Your task to perform on an android device: turn on javascript in the chrome app Image 0: 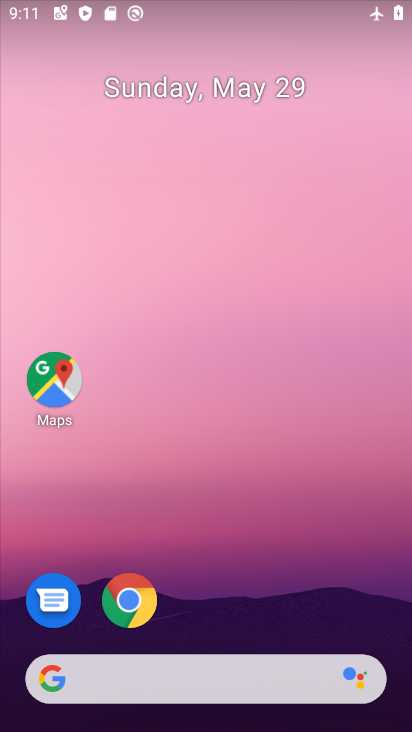
Step 0: click (128, 598)
Your task to perform on an android device: turn on javascript in the chrome app Image 1: 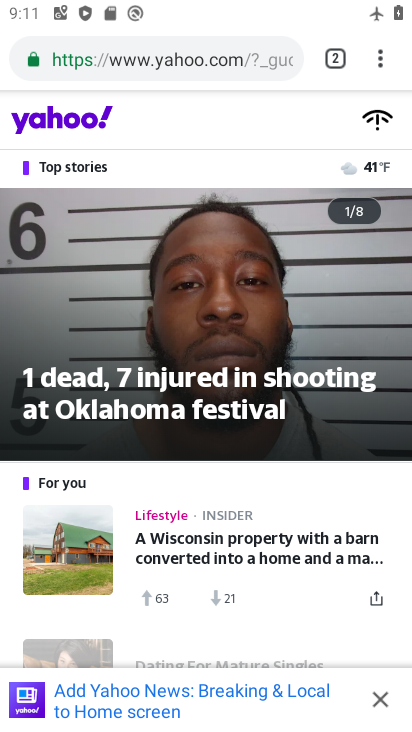
Step 1: click (380, 64)
Your task to perform on an android device: turn on javascript in the chrome app Image 2: 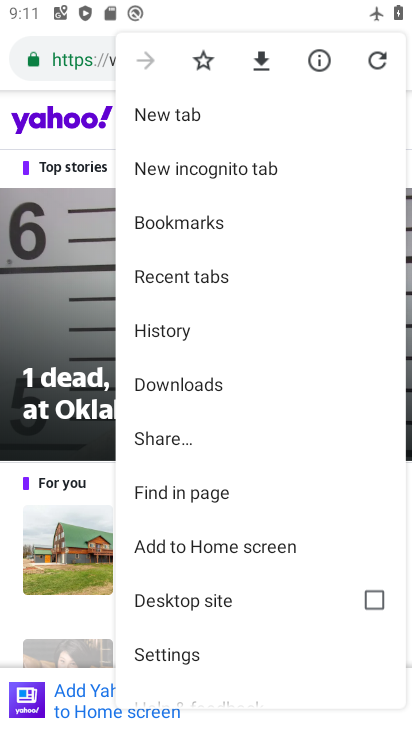
Step 2: click (160, 653)
Your task to perform on an android device: turn on javascript in the chrome app Image 3: 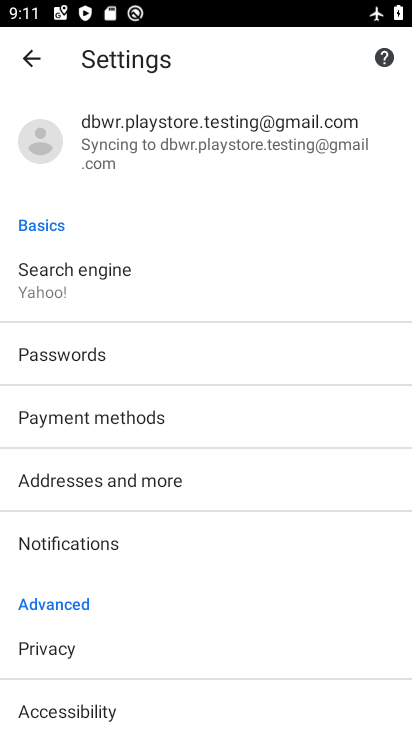
Step 3: drag from (136, 687) to (136, 308)
Your task to perform on an android device: turn on javascript in the chrome app Image 4: 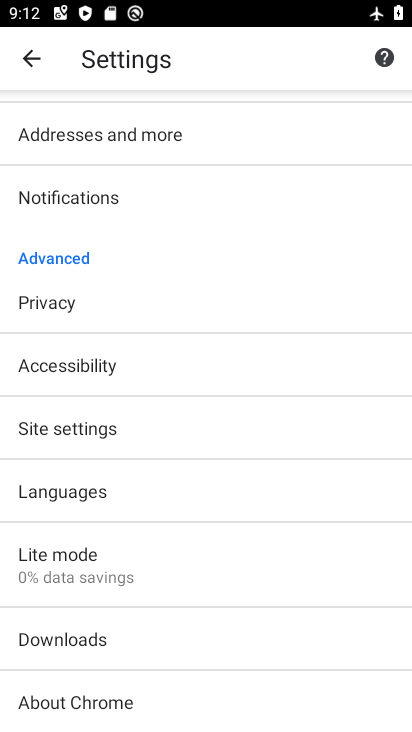
Step 4: drag from (150, 657) to (137, 339)
Your task to perform on an android device: turn on javascript in the chrome app Image 5: 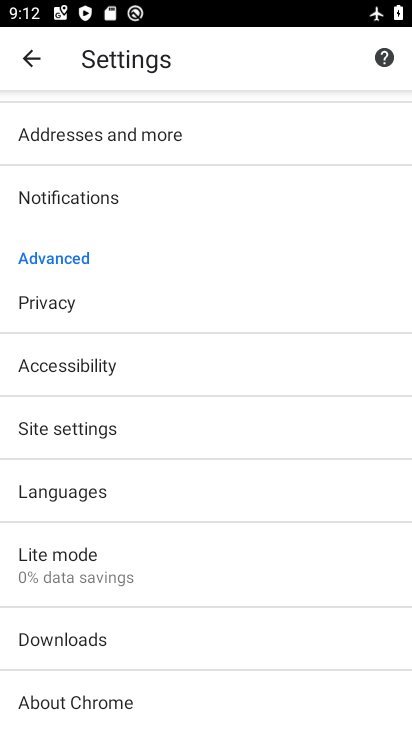
Step 5: click (78, 429)
Your task to perform on an android device: turn on javascript in the chrome app Image 6: 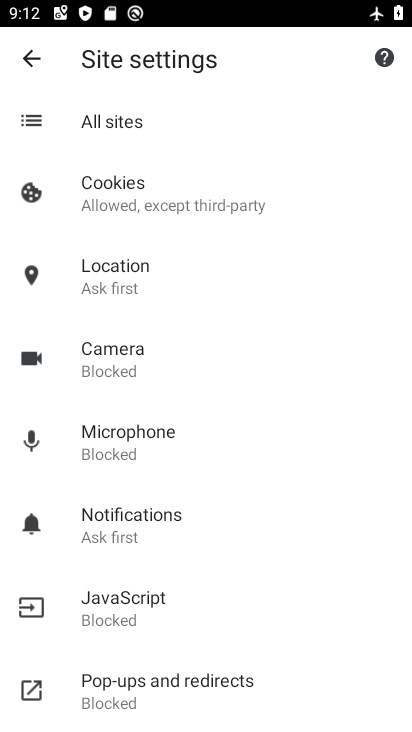
Step 6: click (131, 597)
Your task to perform on an android device: turn on javascript in the chrome app Image 7: 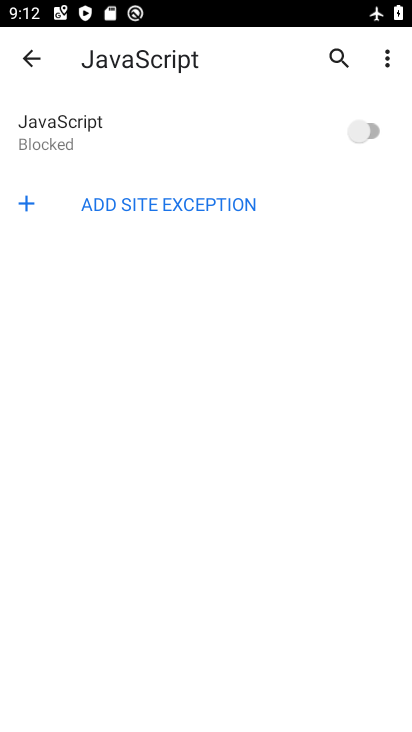
Step 7: click (372, 130)
Your task to perform on an android device: turn on javascript in the chrome app Image 8: 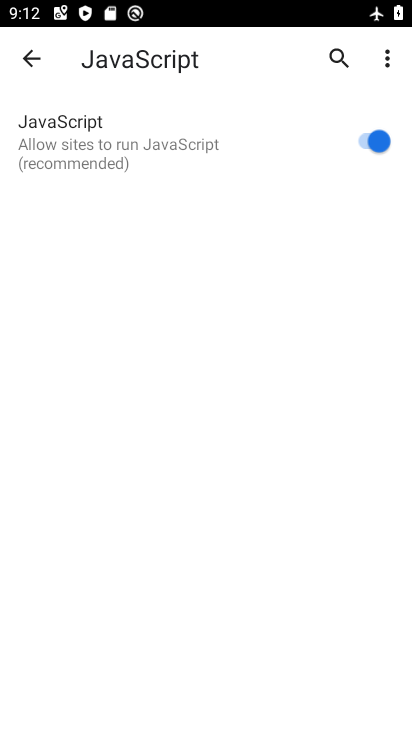
Step 8: task complete